Your task to perform on an android device: Go to Wikipedia Image 0: 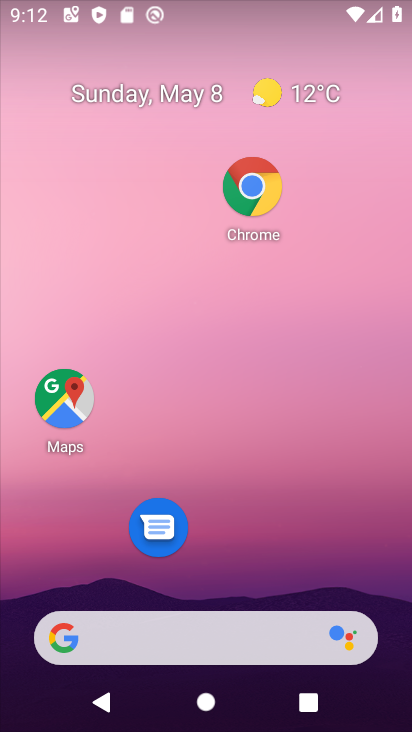
Step 0: drag from (311, 549) to (341, 259)
Your task to perform on an android device: Go to Wikipedia Image 1: 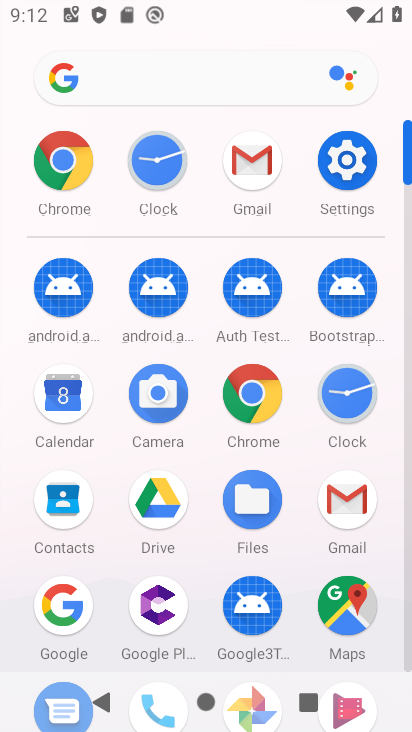
Step 1: click (255, 379)
Your task to perform on an android device: Go to Wikipedia Image 2: 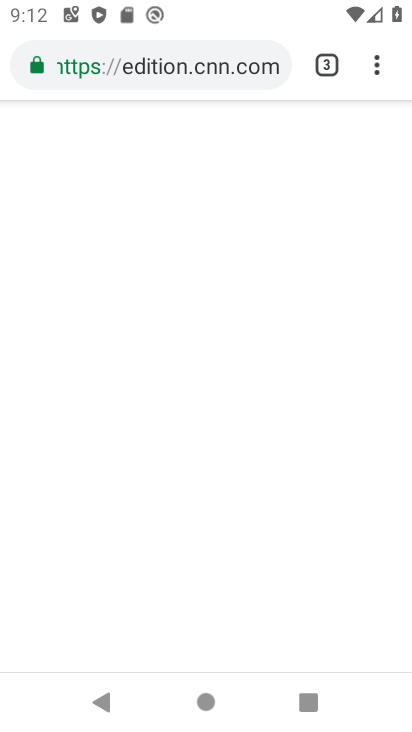
Step 2: click (366, 62)
Your task to perform on an android device: Go to Wikipedia Image 3: 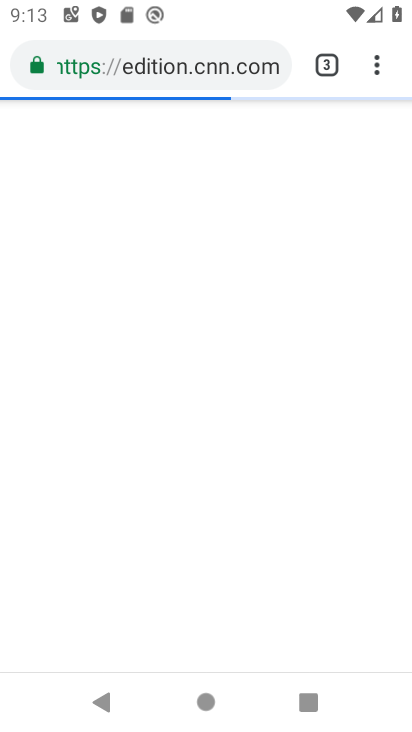
Step 3: click (359, 64)
Your task to perform on an android device: Go to Wikipedia Image 4: 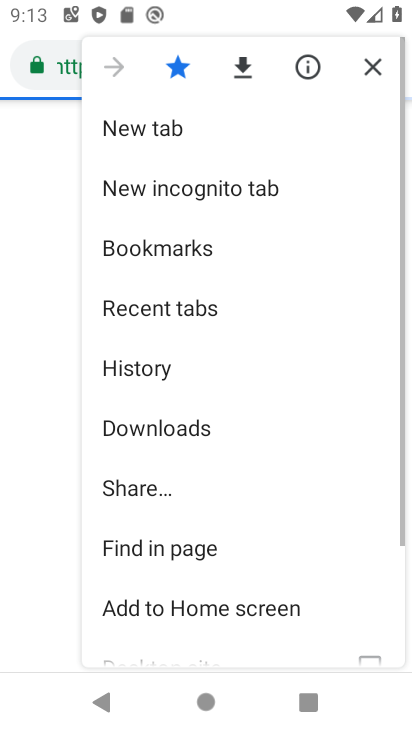
Step 4: click (193, 139)
Your task to perform on an android device: Go to Wikipedia Image 5: 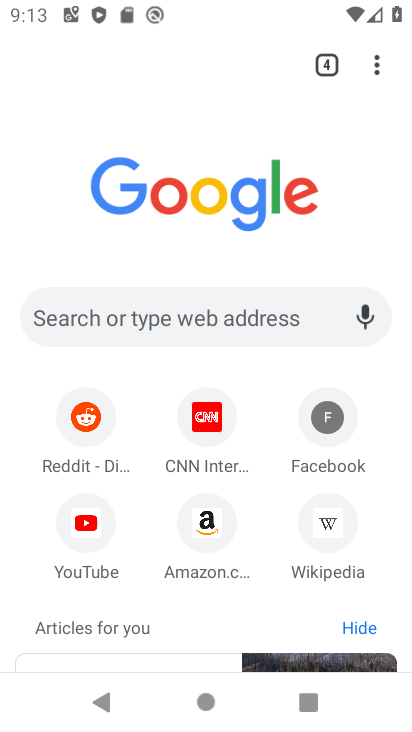
Step 5: click (335, 529)
Your task to perform on an android device: Go to Wikipedia Image 6: 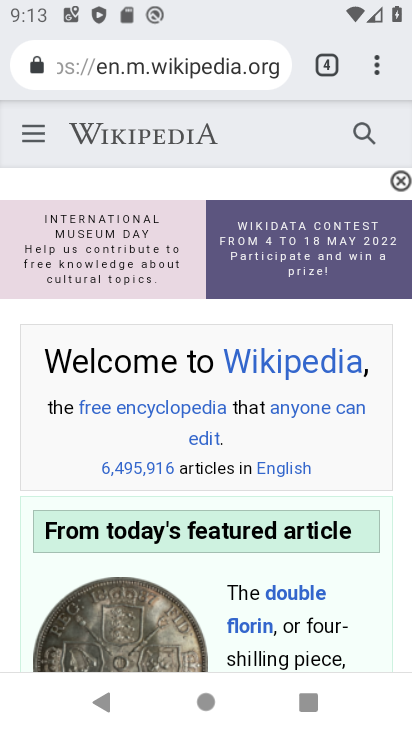
Step 6: task complete